Your task to perform on an android device: toggle improve location accuracy Image 0: 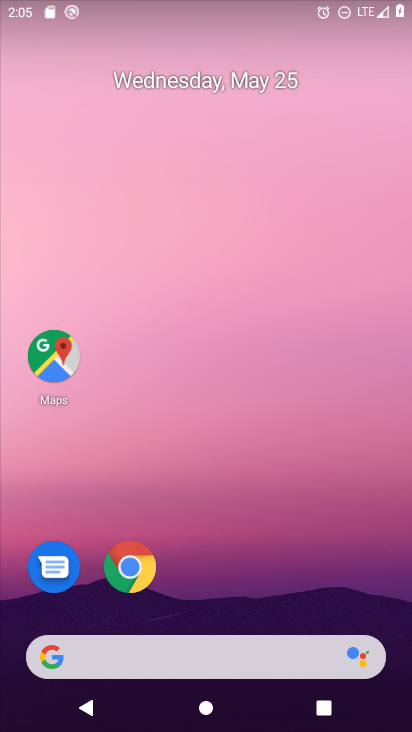
Step 0: drag from (391, 660) to (351, 280)
Your task to perform on an android device: toggle improve location accuracy Image 1: 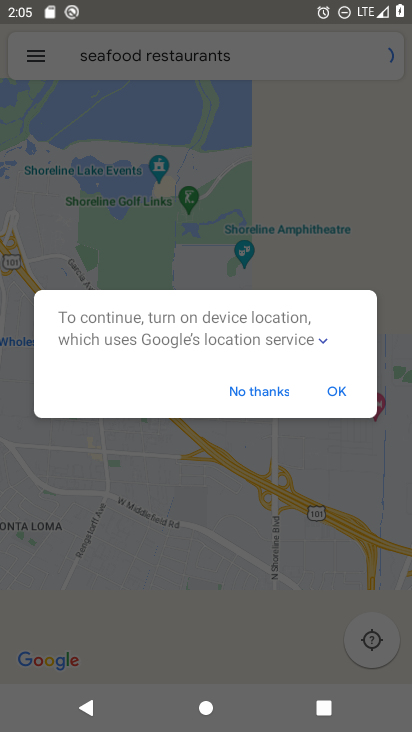
Step 1: click (121, 441)
Your task to perform on an android device: toggle improve location accuracy Image 2: 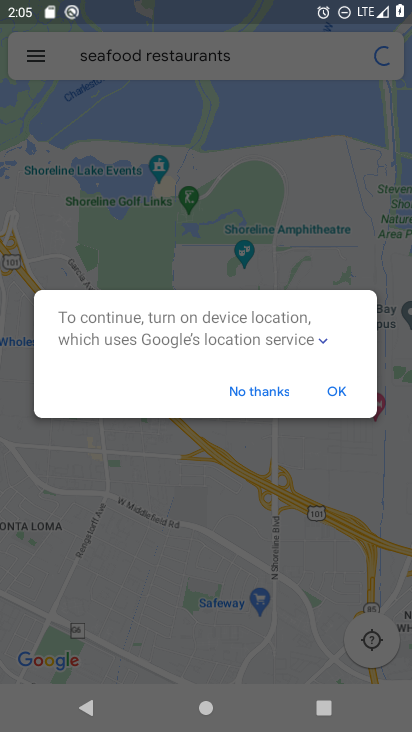
Step 2: press back button
Your task to perform on an android device: toggle improve location accuracy Image 3: 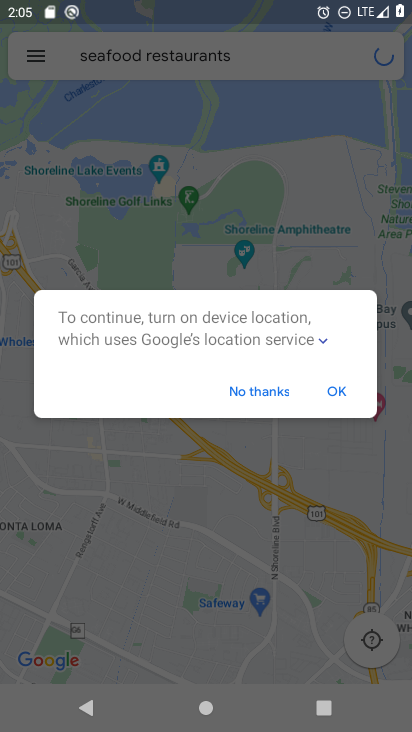
Step 3: click (336, 400)
Your task to perform on an android device: toggle improve location accuracy Image 4: 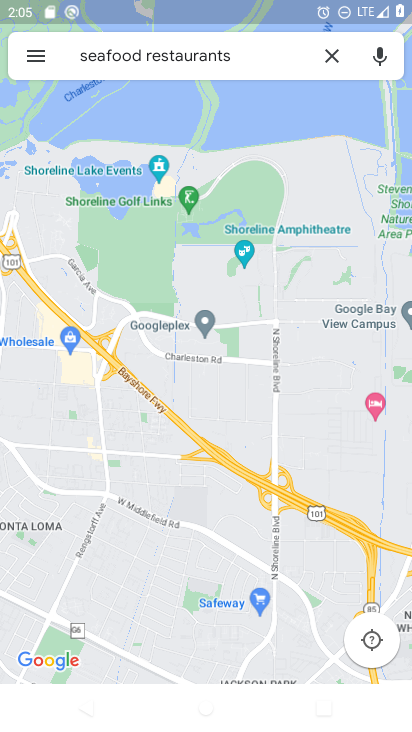
Step 4: press home button
Your task to perform on an android device: toggle improve location accuracy Image 5: 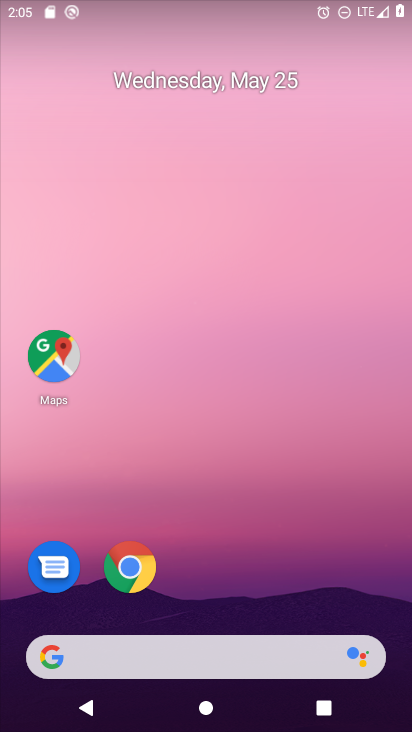
Step 5: drag from (390, 538) to (368, 106)
Your task to perform on an android device: toggle improve location accuracy Image 6: 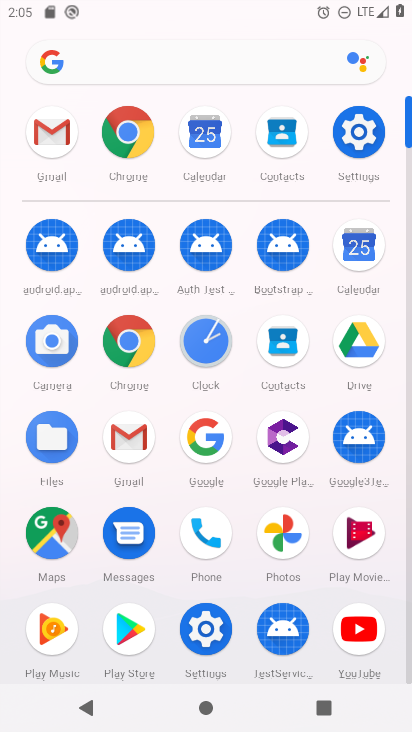
Step 6: click (363, 126)
Your task to perform on an android device: toggle improve location accuracy Image 7: 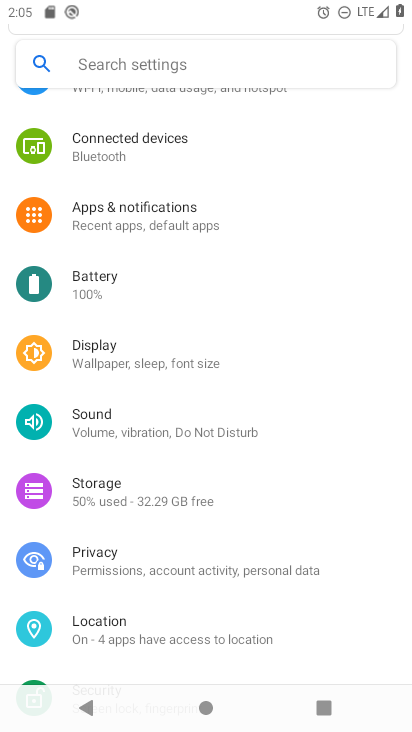
Step 7: click (112, 624)
Your task to perform on an android device: toggle improve location accuracy Image 8: 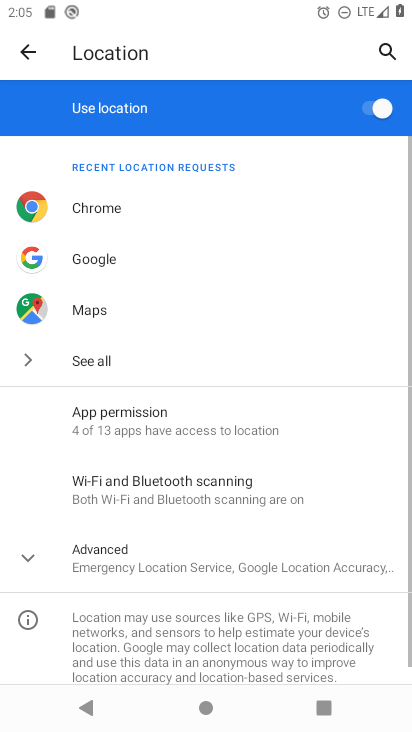
Step 8: click (25, 557)
Your task to perform on an android device: toggle improve location accuracy Image 9: 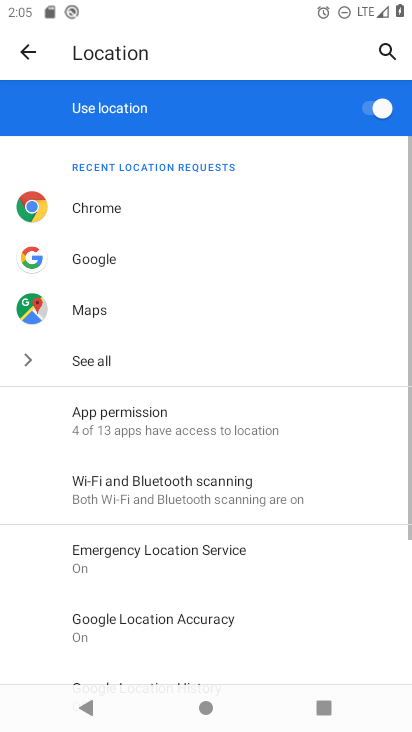
Step 9: drag from (345, 654) to (324, 356)
Your task to perform on an android device: toggle improve location accuracy Image 10: 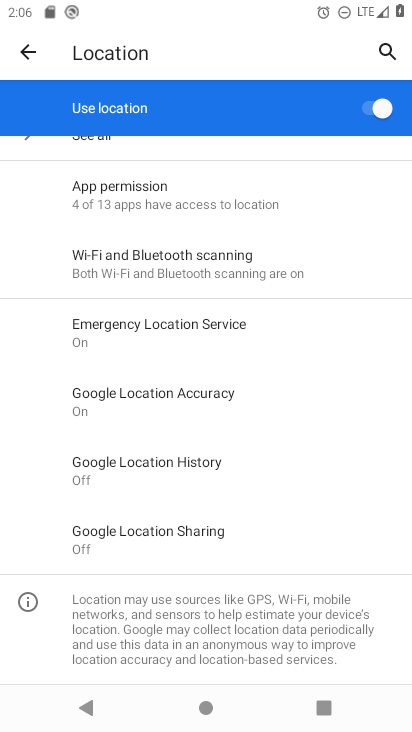
Step 10: click (160, 393)
Your task to perform on an android device: toggle improve location accuracy Image 11: 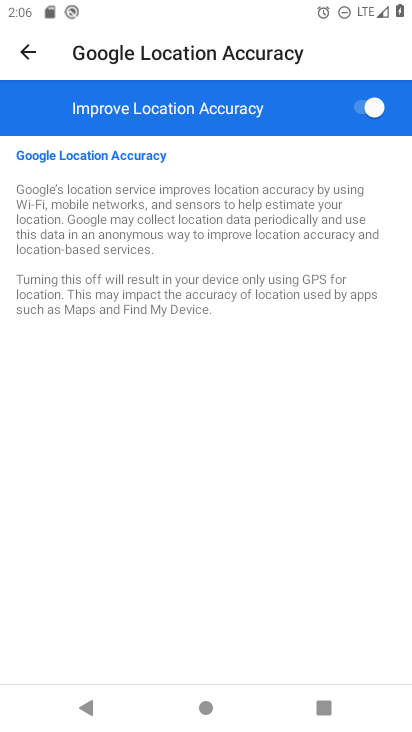
Step 11: click (367, 107)
Your task to perform on an android device: toggle improve location accuracy Image 12: 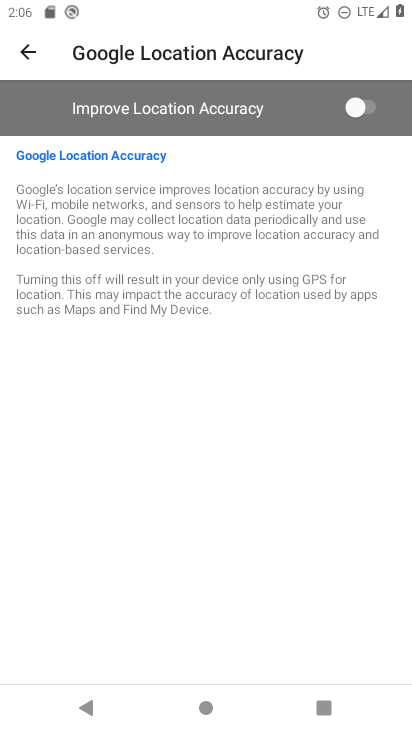
Step 12: task complete